Your task to perform on an android device: Open Amazon Image 0: 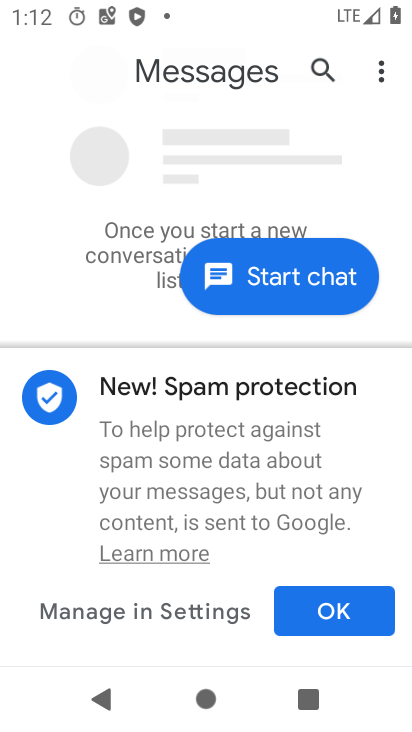
Step 0: press home button
Your task to perform on an android device: Open Amazon Image 1: 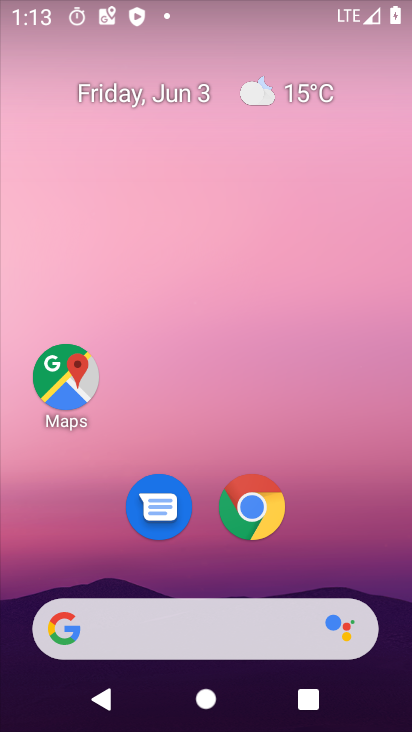
Step 1: drag from (380, 639) to (340, 349)
Your task to perform on an android device: Open Amazon Image 2: 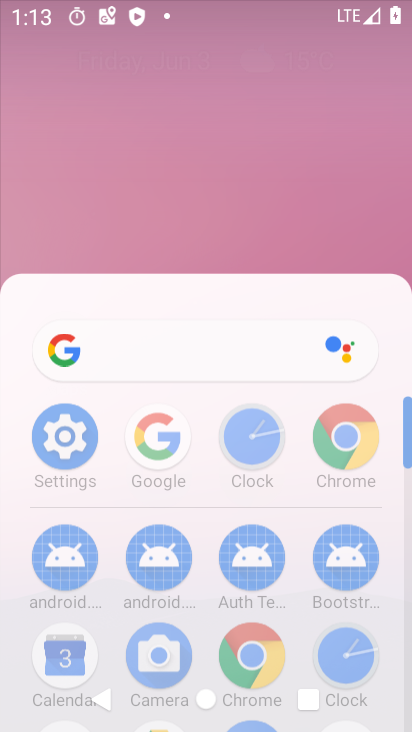
Step 2: click (222, 130)
Your task to perform on an android device: Open Amazon Image 3: 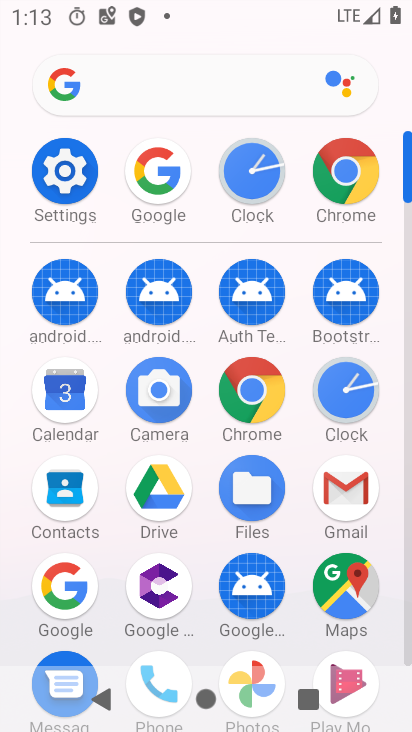
Step 3: click (79, 587)
Your task to perform on an android device: Open Amazon Image 4: 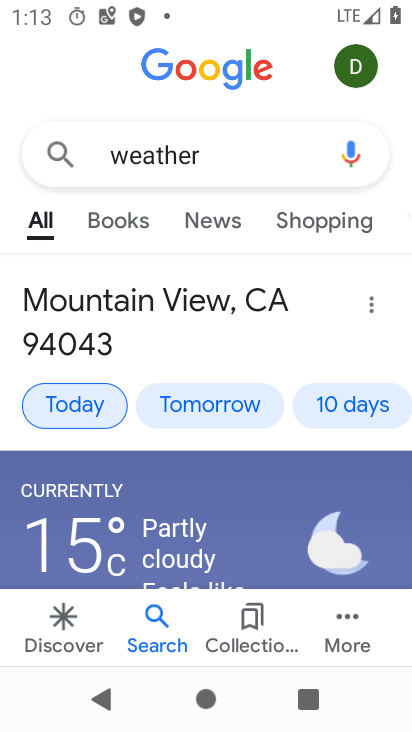
Step 4: press back button
Your task to perform on an android device: Open Amazon Image 5: 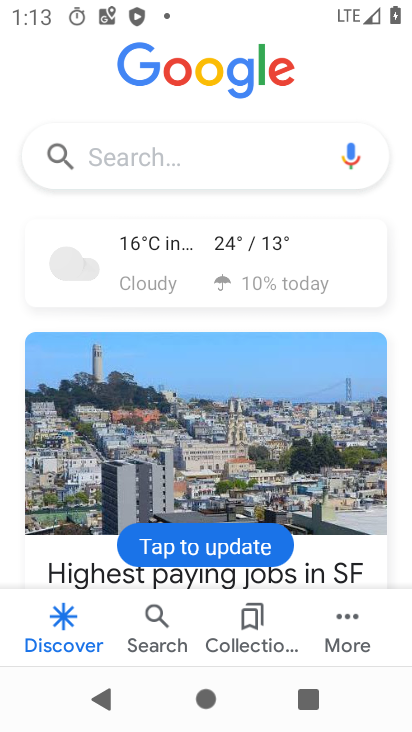
Step 5: click (124, 140)
Your task to perform on an android device: Open Amazon Image 6: 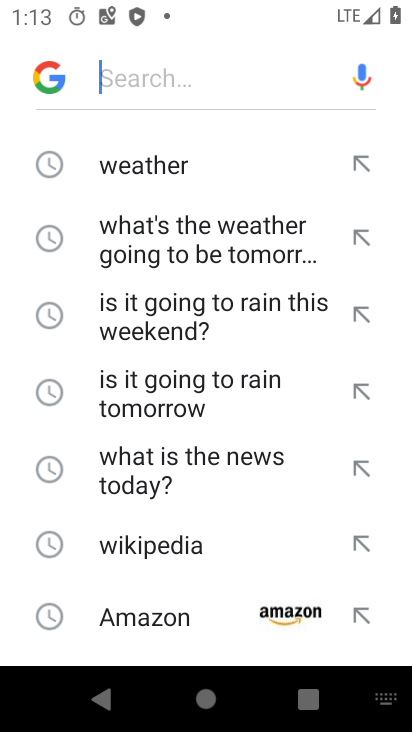
Step 6: click (260, 608)
Your task to perform on an android device: Open Amazon Image 7: 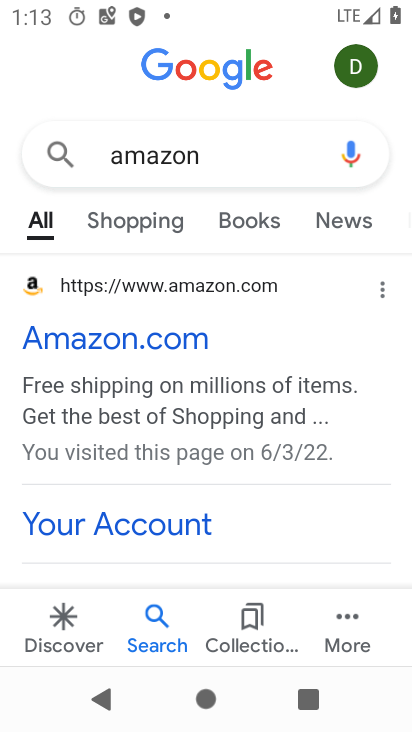
Step 7: task complete